Your task to perform on an android device: Open maps Image 0: 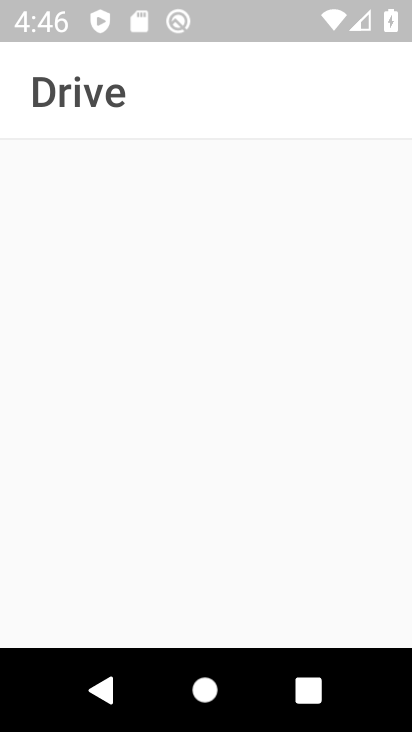
Step 0: press home button
Your task to perform on an android device: Open maps Image 1: 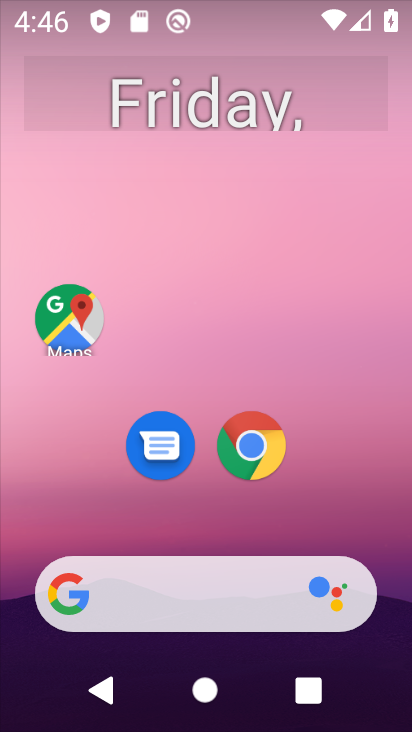
Step 1: click (63, 324)
Your task to perform on an android device: Open maps Image 2: 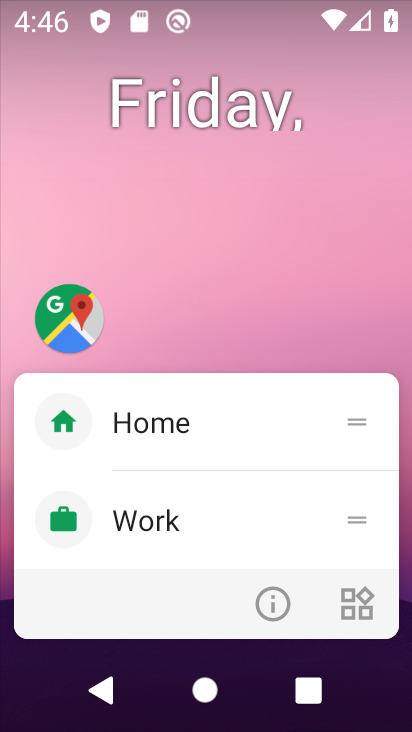
Step 2: task complete